Your task to perform on an android device: toggle improve location accuracy Image 0: 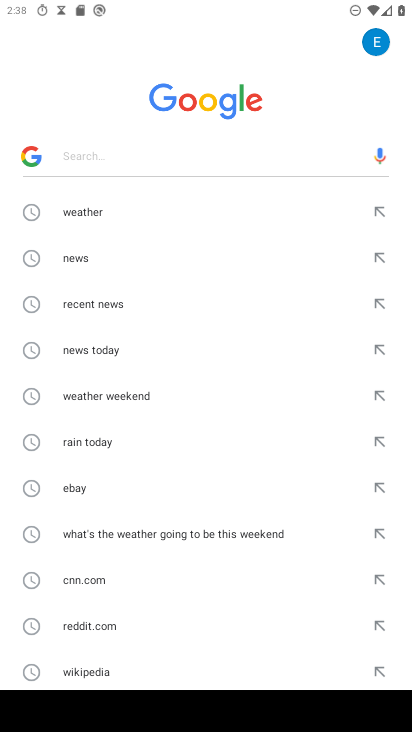
Step 0: press home button
Your task to perform on an android device: toggle improve location accuracy Image 1: 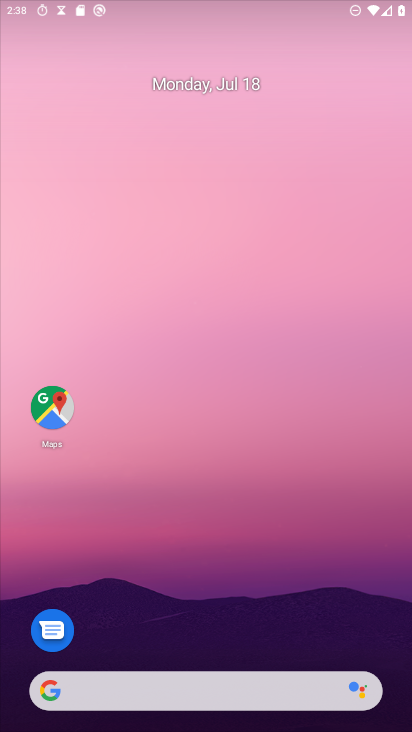
Step 1: drag from (181, 564) to (244, 3)
Your task to perform on an android device: toggle improve location accuracy Image 2: 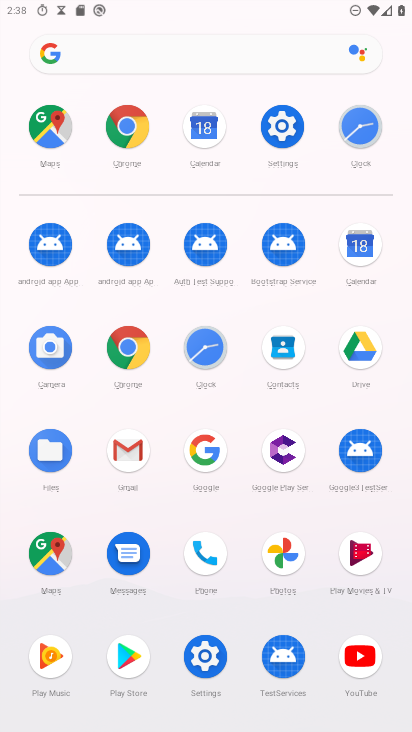
Step 2: click (283, 127)
Your task to perform on an android device: toggle improve location accuracy Image 3: 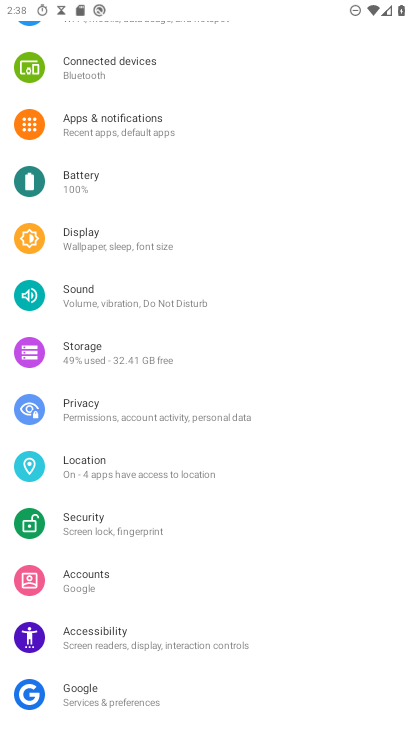
Step 3: click (96, 471)
Your task to perform on an android device: toggle improve location accuracy Image 4: 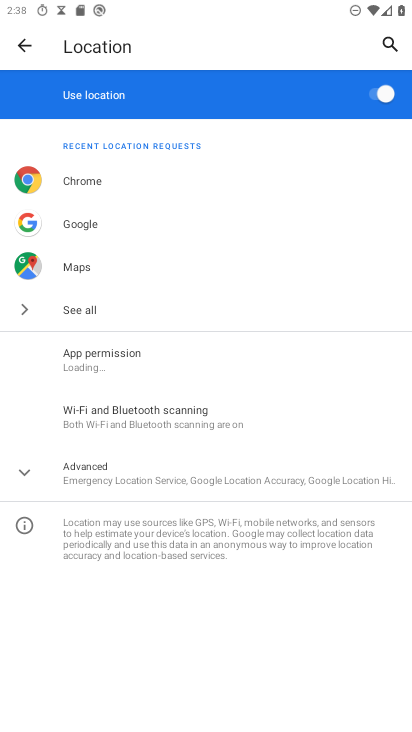
Step 4: click (180, 477)
Your task to perform on an android device: toggle improve location accuracy Image 5: 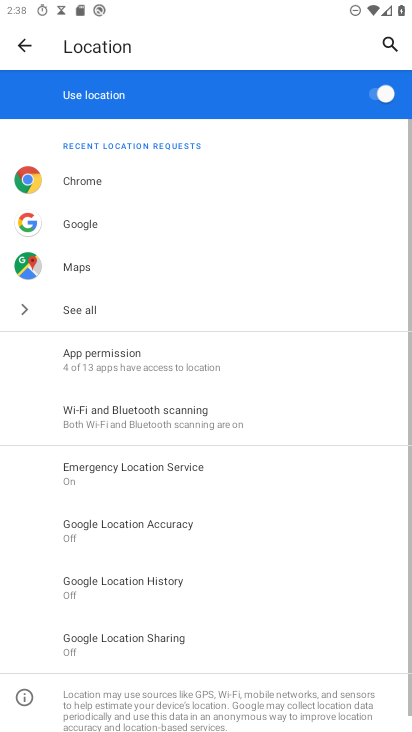
Step 5: click (174, 528)
Your task to perform on an android device: toggle improve location accuracy Image 6: 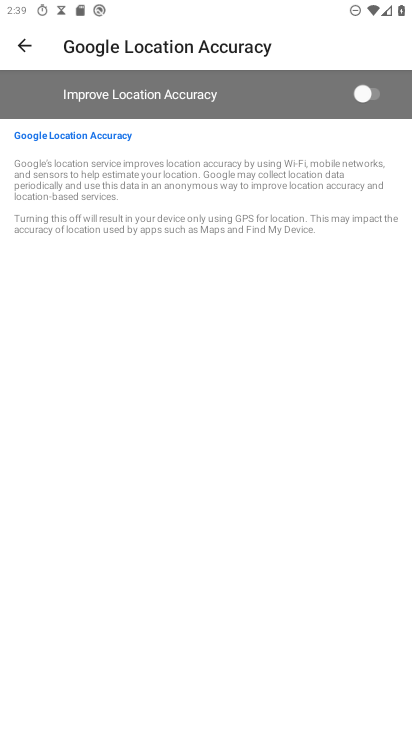
Step 6: click (372, 97)
Your task to perform on an android device: toggle improve location accuracy Image 7: 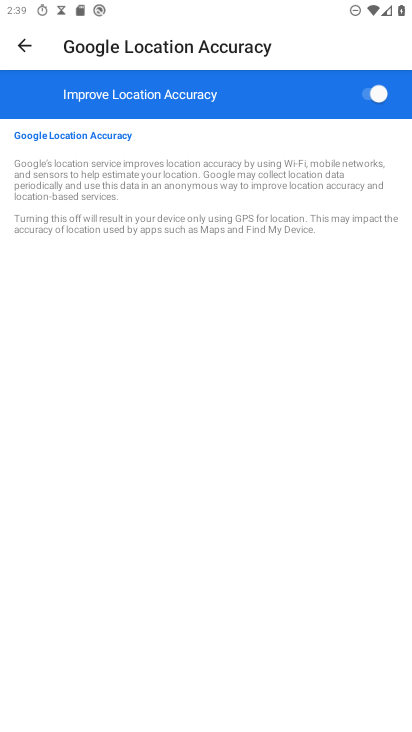
Step 7: task complete